Your task to perform on an android device: open chrome and create a bookmark for the current page Image 0: 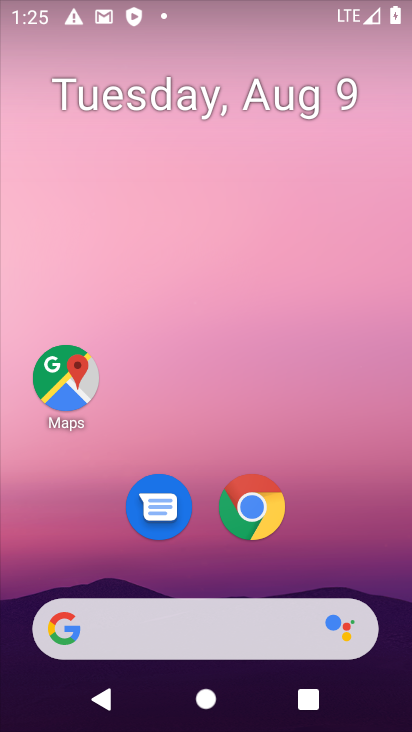
Step 0: click (245, 501)
Your task to perform on an android device: open chrome and create a bookmark for the current page Image 1: 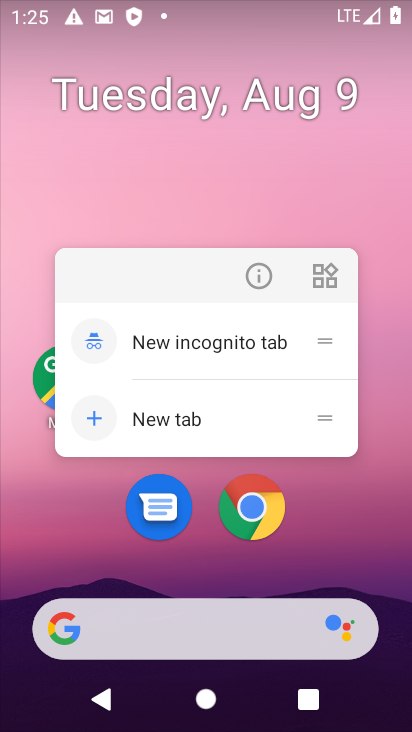
Step 1: click (324, 528)
Your task to perform on an android device: open chrome and create a bookmark for the current page Image 2: 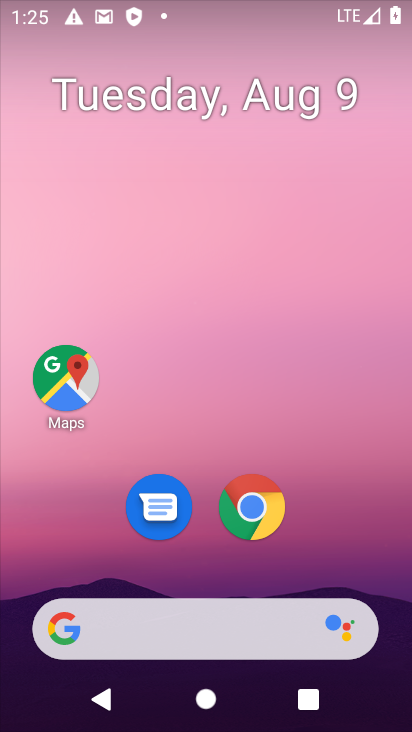
Step 2: click (281, 542)
Your task to perform on an android device: open chrome and create a bookmark for the current page Image 3: 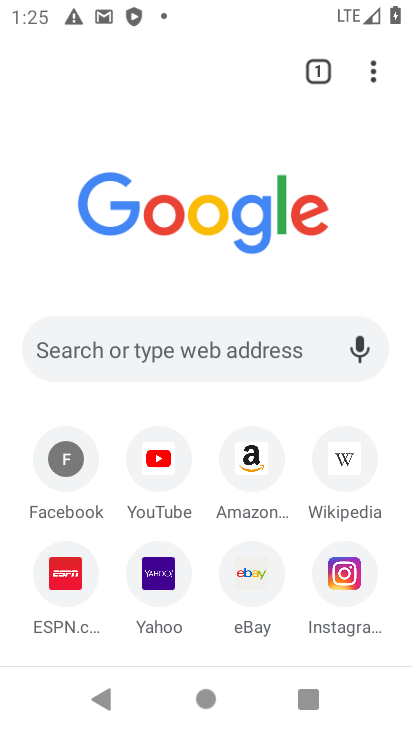
Step 3: click (385, 76)
Your task to perform on an android device: open chrome and create a bookmark for the current page Image 4: 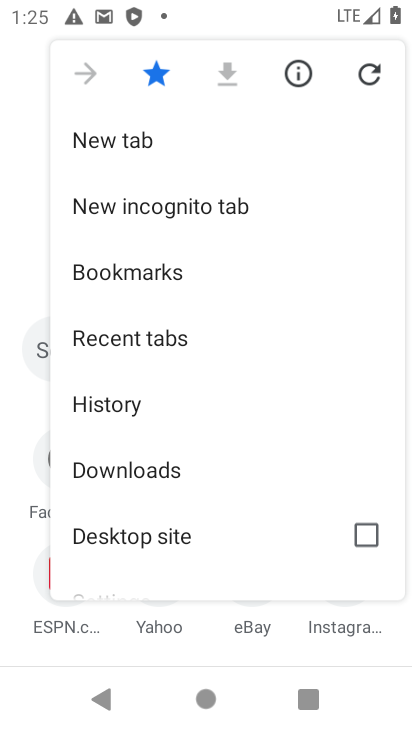
Step 4: click (133, 278)
Your task to perform on an android device: open chrome and create a bookmark for the current page Image 5: 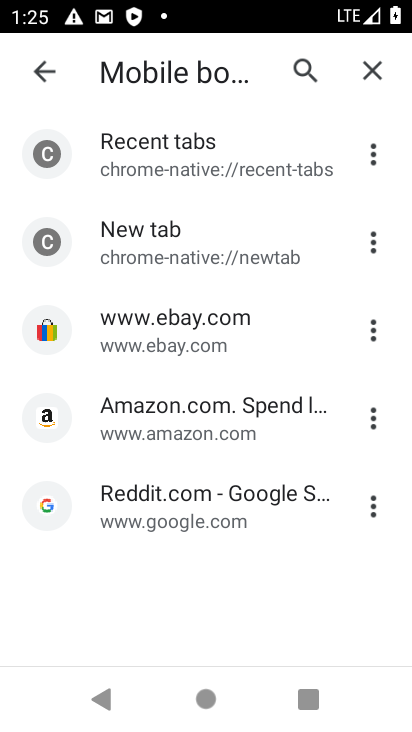
Step 5: task complete